Your task to perform on an android device: change alarm snooze length Image 0: 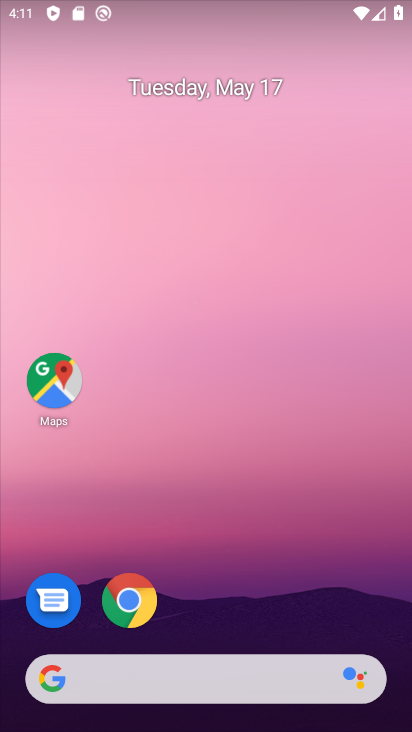
Step 0: drag from (398, 626) to (344, 42)
Your task to perform on an android device: change alarm snooze length Image 1: 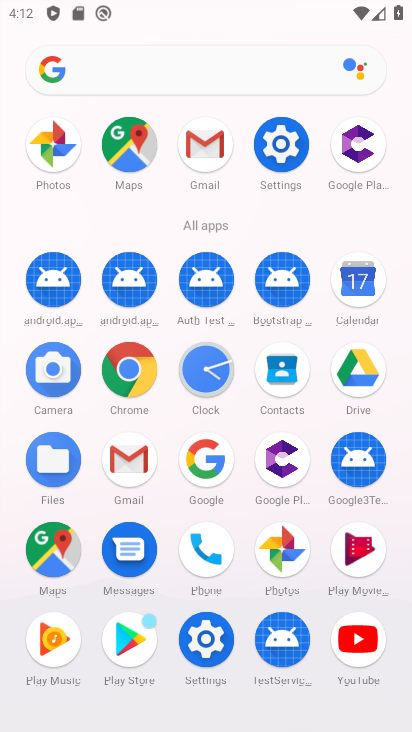
Step 1: click (202, 368)
Your task to perform on an android device: change alarm snooze length Image 2: 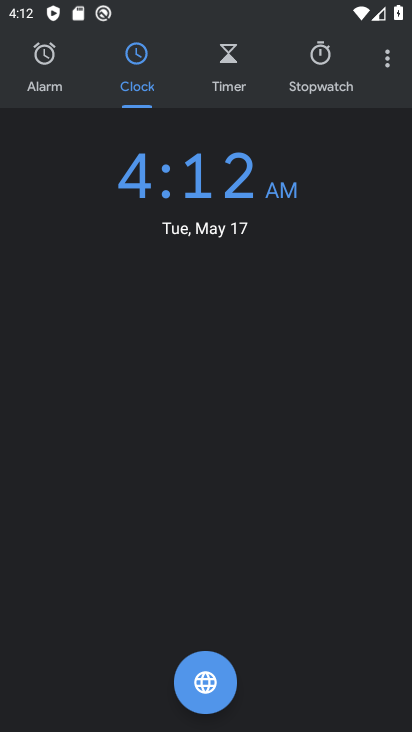
Step 2: click (387, 64)
Your task to perform on an android device: change alarm snooze length Image 3: 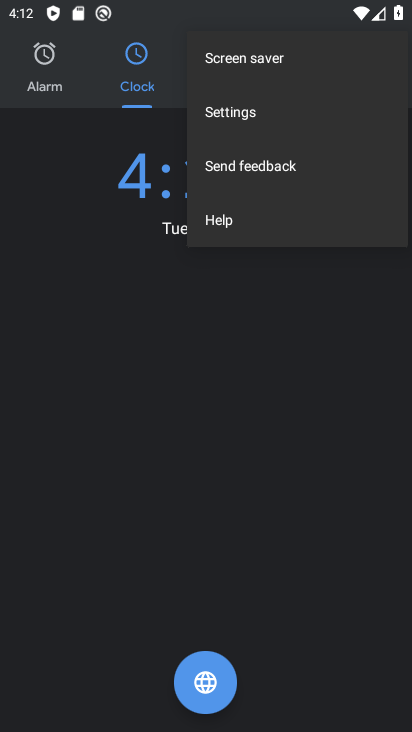
Step 3: press home button
Your task to perform on an android device: change alarm snooze length Image 4: 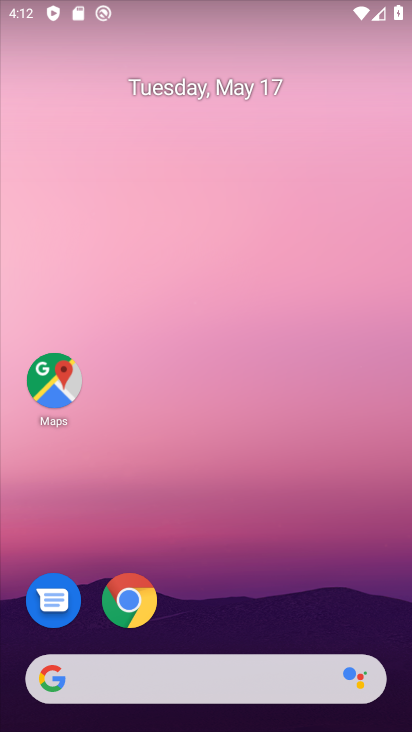
Step 4: drag from (385, 638) to (331, 27)
Your task to perform on an android device: change alarm snooze length Image 5: 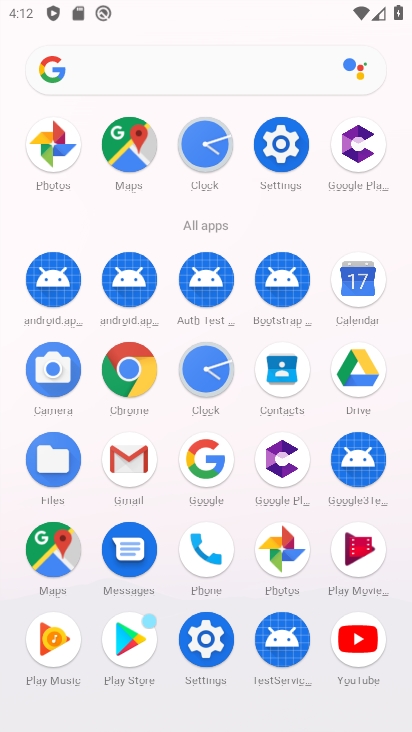
Step 5: click (200, 369)
Your task to perform on an android device: change alarm snooze length Image 6: 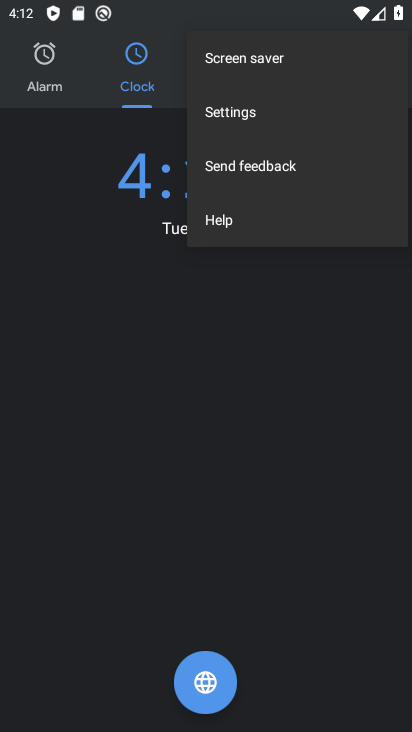
Step 6: click (229, 107)
Your task to perform on an android device: change alarm snooze length Image 7: 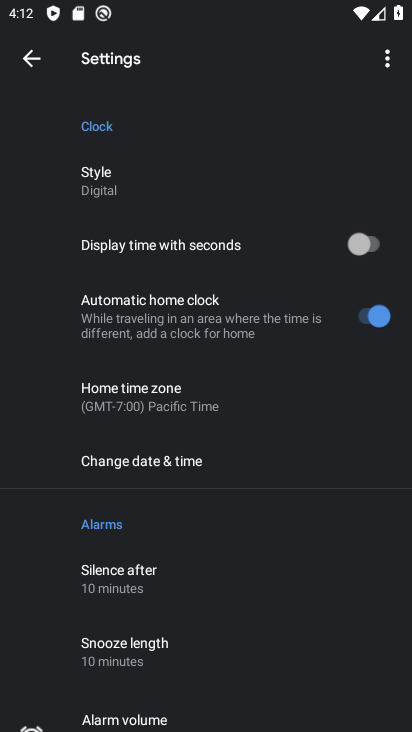
Step 7: drag from (268, 651) to (287, 387)
Your task to perform on an android device: change alarm snooze length Image 8: 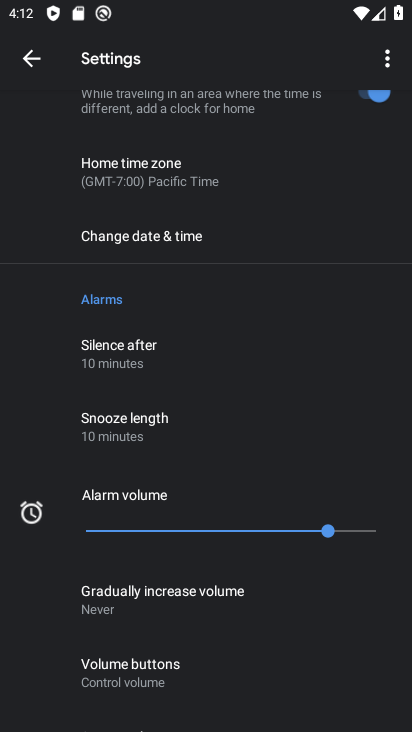
Step 8: click (123, 433)
Your task to perform on an android device: change alarm snooze length Image 9: 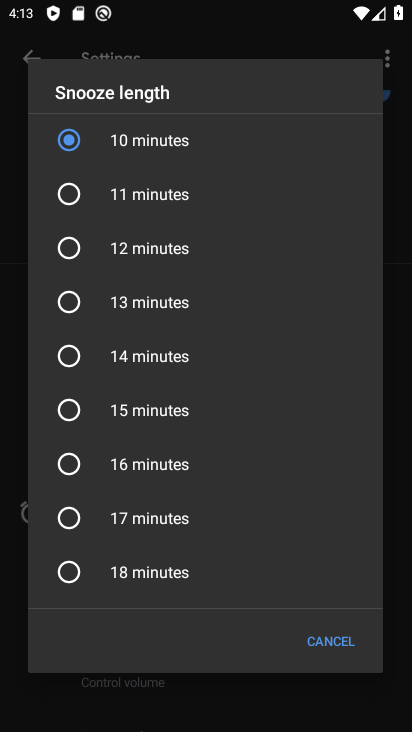
Step 9: click (68, 410)
Your task to perform on an android device: change alarm snooze length Image 10: 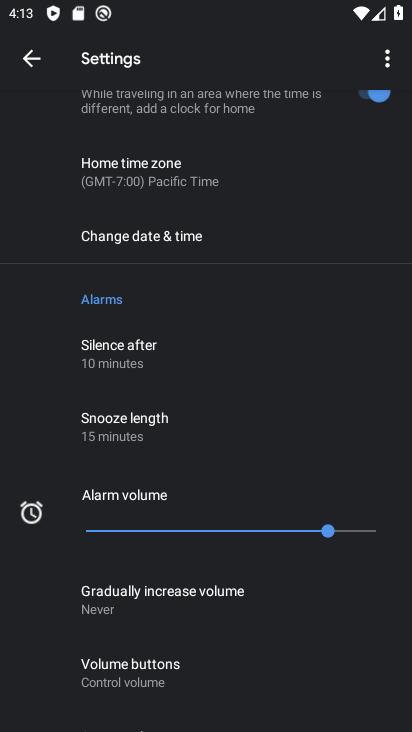
Step 10: task complete